Your task to perform on an android device: see creations saved in the google photos Image 0: 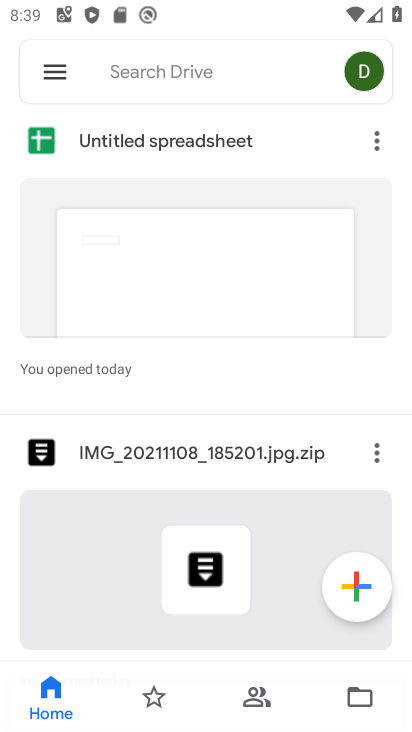
Step 0: task impossible